Your task to perform on an android device: turn off data saver in the chrome app Image 0: 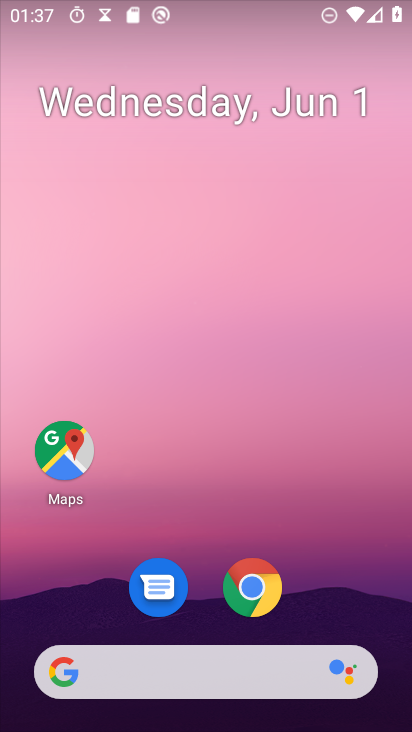
Step 0: click (247, 580)
Your task to perform on an android device: turn off data saver in the chrome app Image 1: 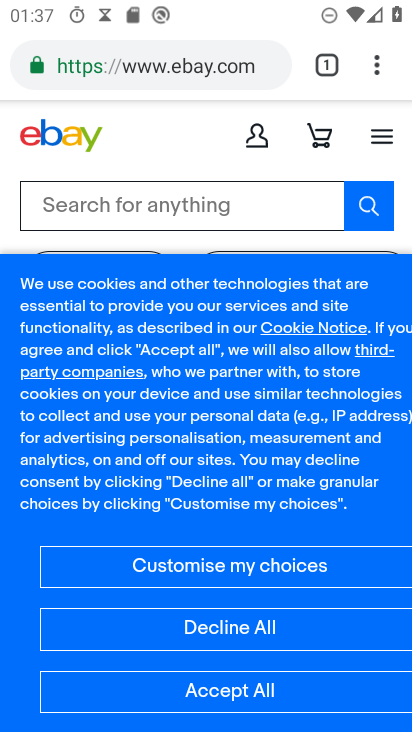
Step 1: click (382, 75)
Your task to perform on an android device: turn off data saver in the chrome app Image 2: 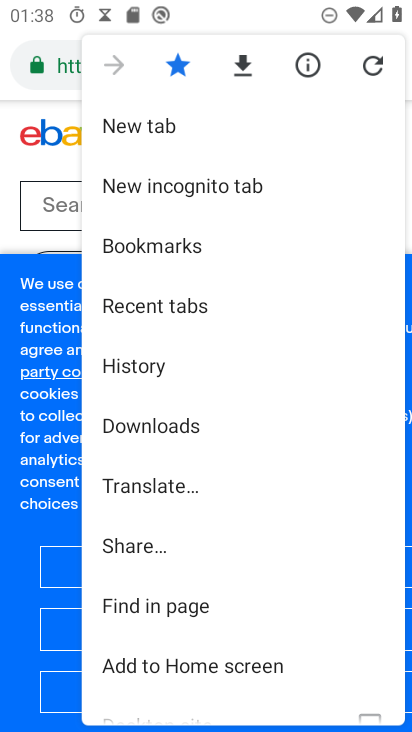
Step 2: drag from (199, 666) to (308, 159)
Your task to perform on an android device: turn off data saver in the chrome app Image 3: 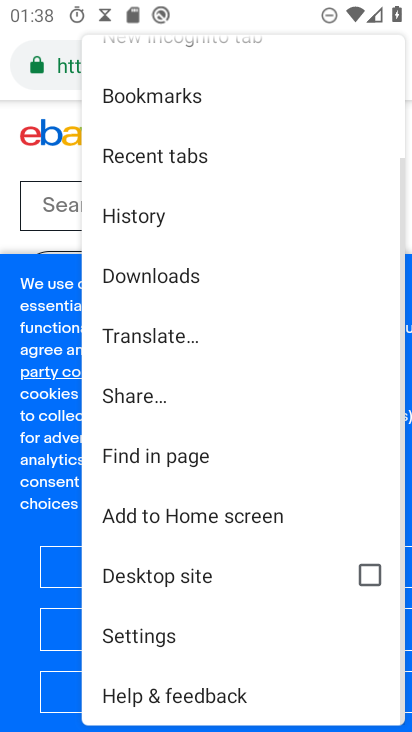
Step 3: click (160, 628)
Your task to perform on an android device: turn off data saver in the chrome app Image 4: 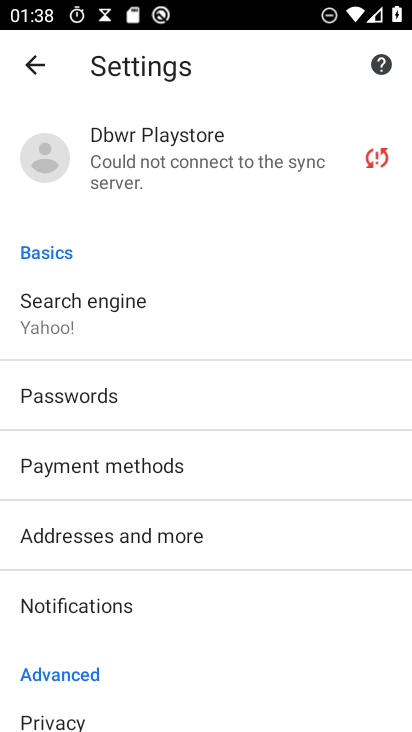
Step 4: drag from (147, 667) to (133, 220)
Your task to perform on an android device: turn off data saver in the chrome app Image 5: 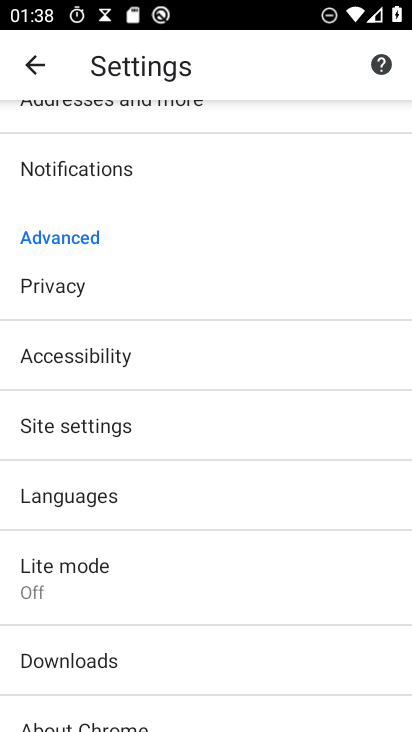
Step 5: click (75, 585)
Your task to perform on an android device: turn off data saver in the chrome app Image 6: 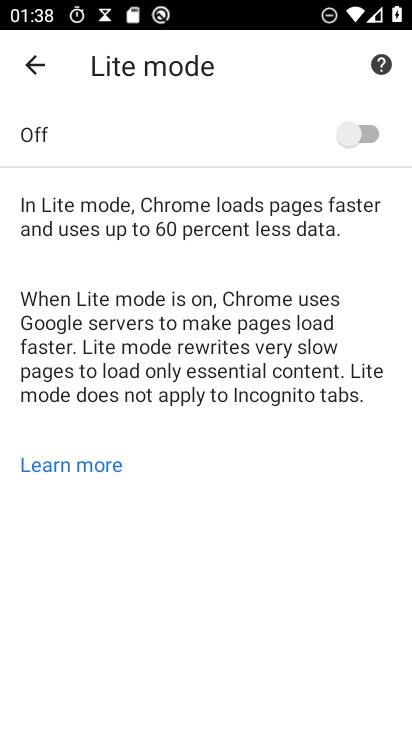
Step 6: task complete